Your task to perform on an android device: Play the last video I watched on Youtube Image 0: 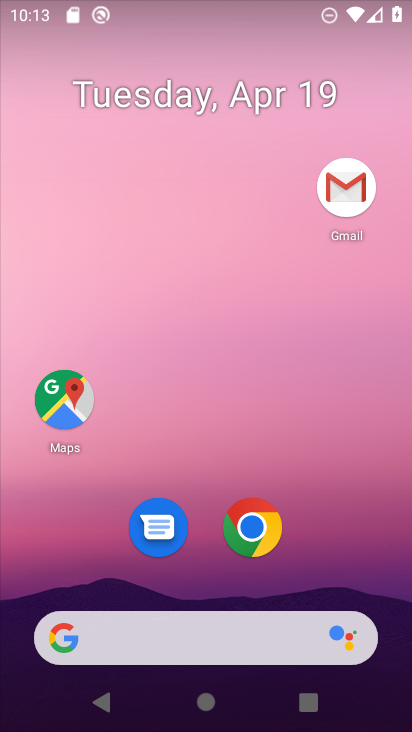
Step 0: drag from (359, 455) to (299, 112)
Your task to perform on an android device: Play the last video I watched on Youtube Image 1: 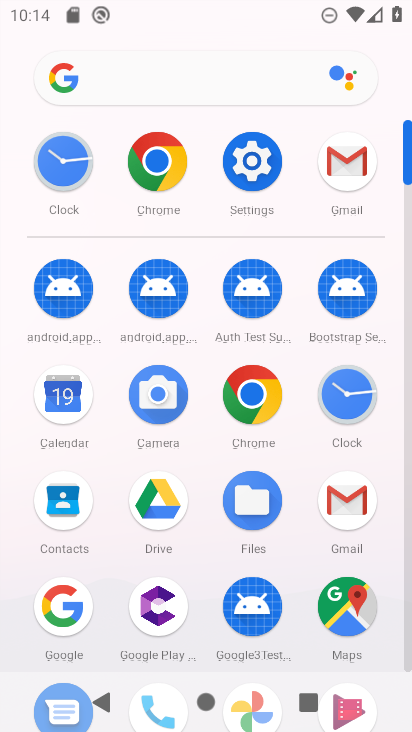
Step 1: drag from (302, 561) to (288, 256)
Your task to perform on an android device: Play the last video I watched on Youtube Image 2: 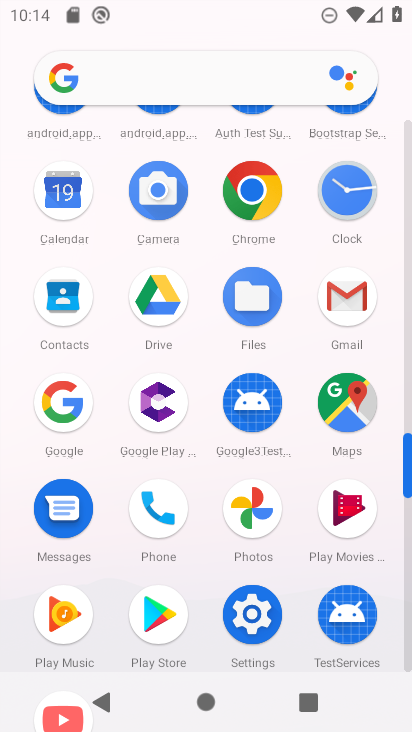
Step 2: drag from (306, 642) to (275, 375)
Your task to perform on an android device: Play the last video I watched on Youtube Image 3: 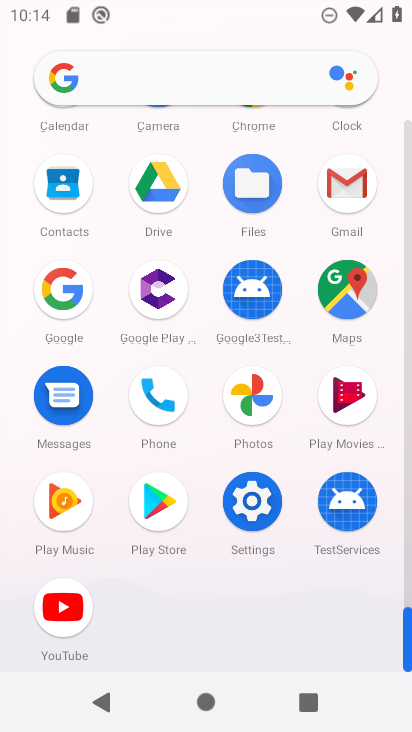
Step 3: click (77, 606)
Your task to perform on an android device: Play the last video I watched on Youtube Image 4: 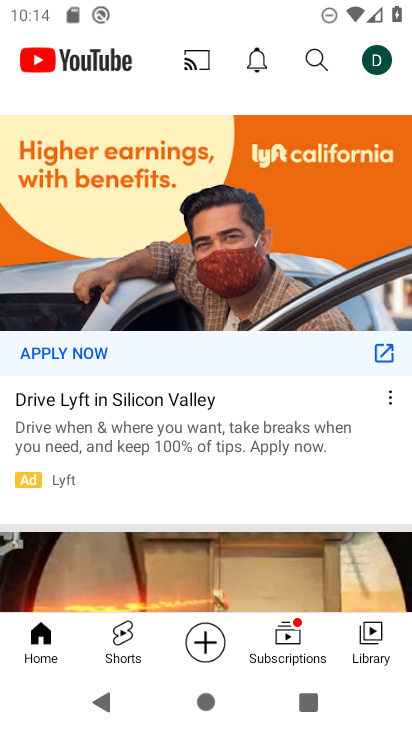
Step 4: click (370, 654)
Your task to perform on an android device: Play the last video I watched on Youtube Image 5: 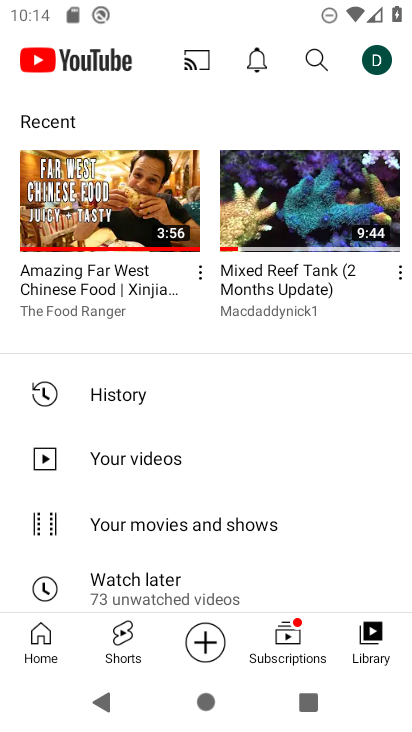
Step 5: task complete